Your task to perform on an android device: Clear the cart on costco. Add panasonic triple a to the cart on costco, then select checkout. Image 0: 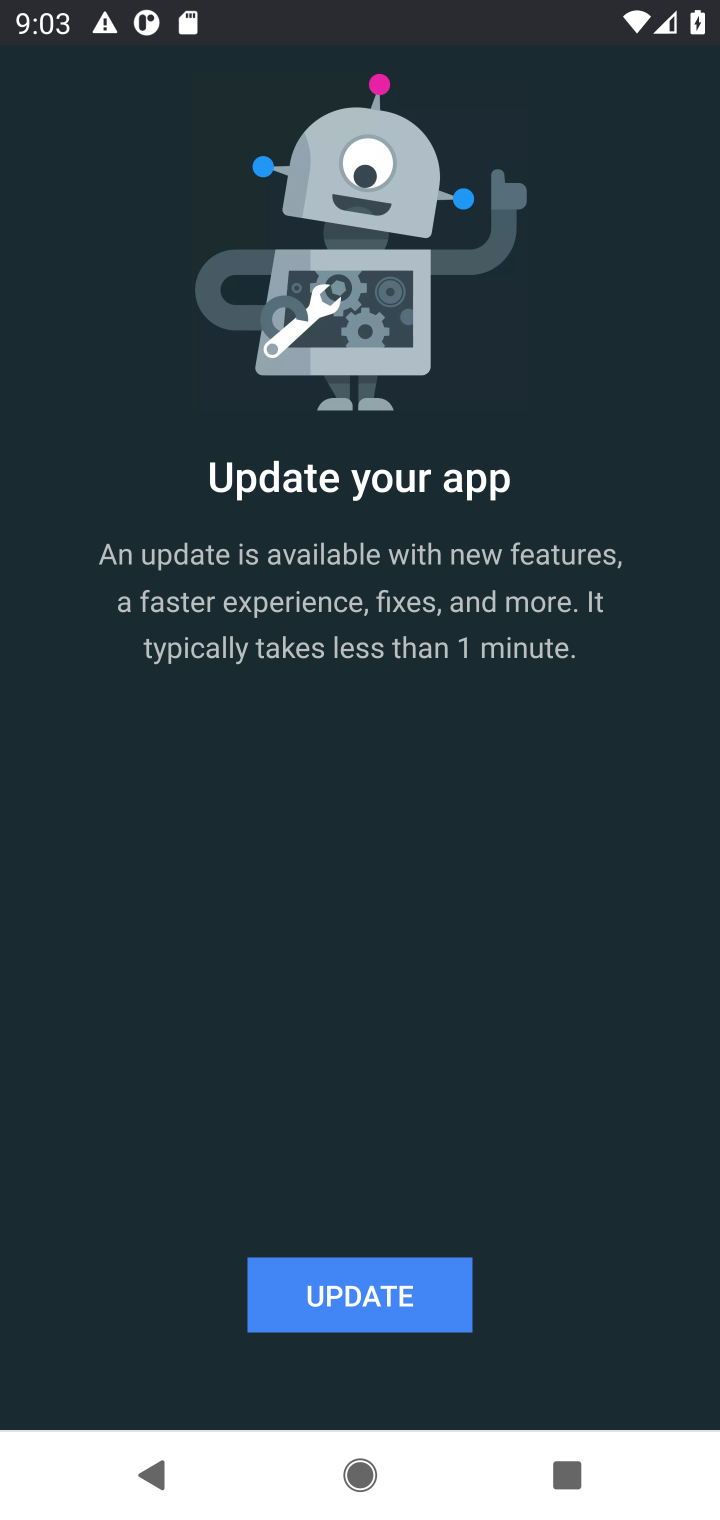
Step 0: press home button
Your task to perform on an android device: Clear the cart on costco. Add panasonic triple a to the cart on costco, then select checkout. Image 1: 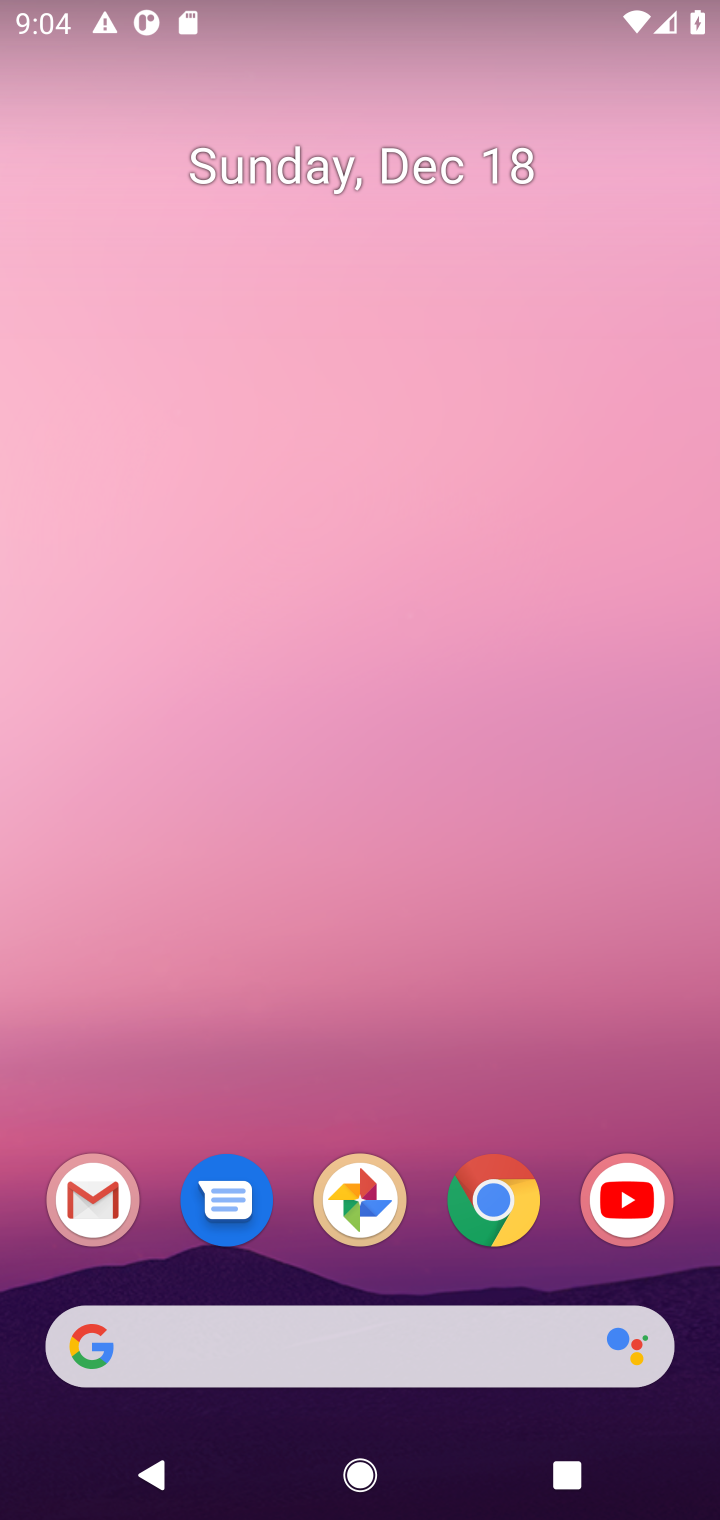
Step 1: click (485, 1213)
Your task to perform on an android device: Clear the cart on costco. Add panasonic triple a to the cart on costco, then select checkout. Image 2: 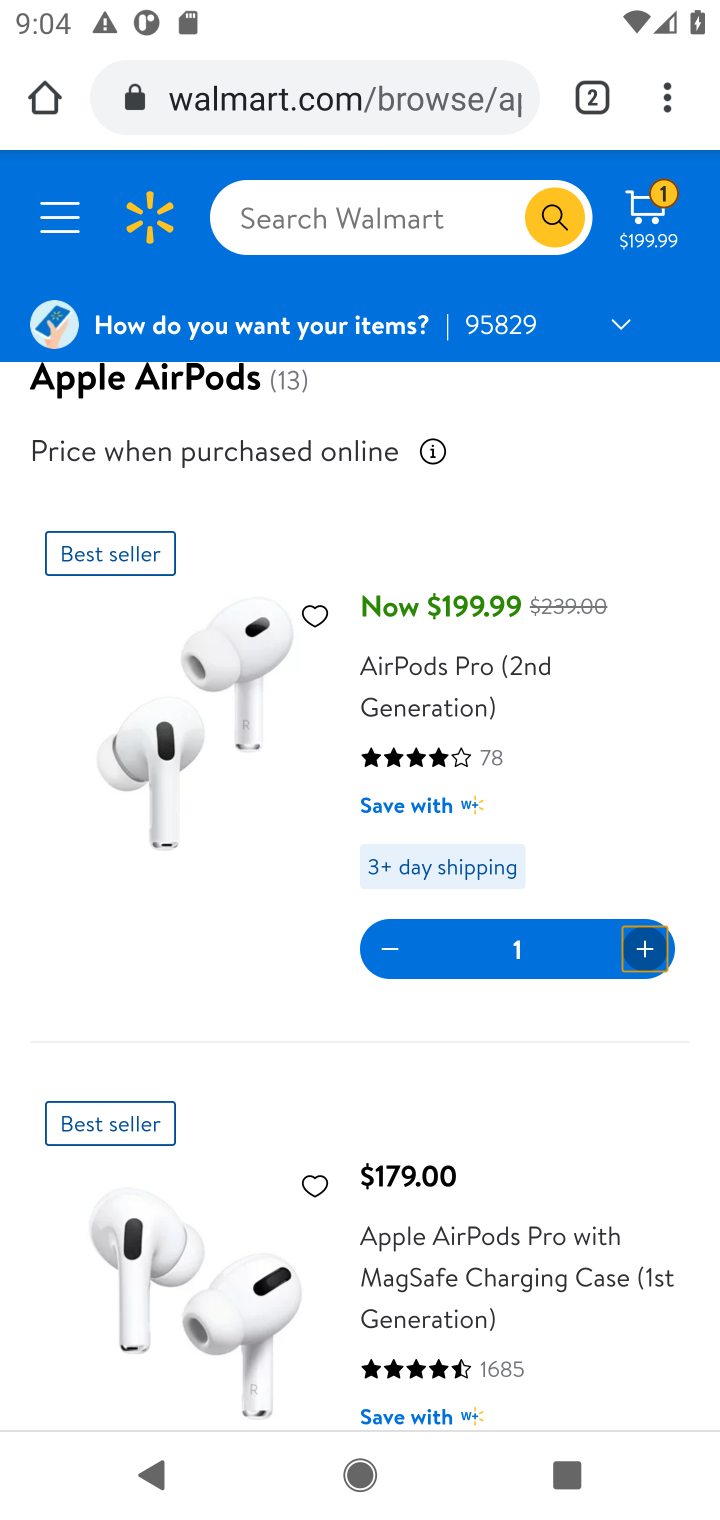
Step 2: click (203, 97)
Your task to perform on an android device: Clear the cart on costco. Add panasonic triple a to the cart on costco, then select checkout. Image 3: 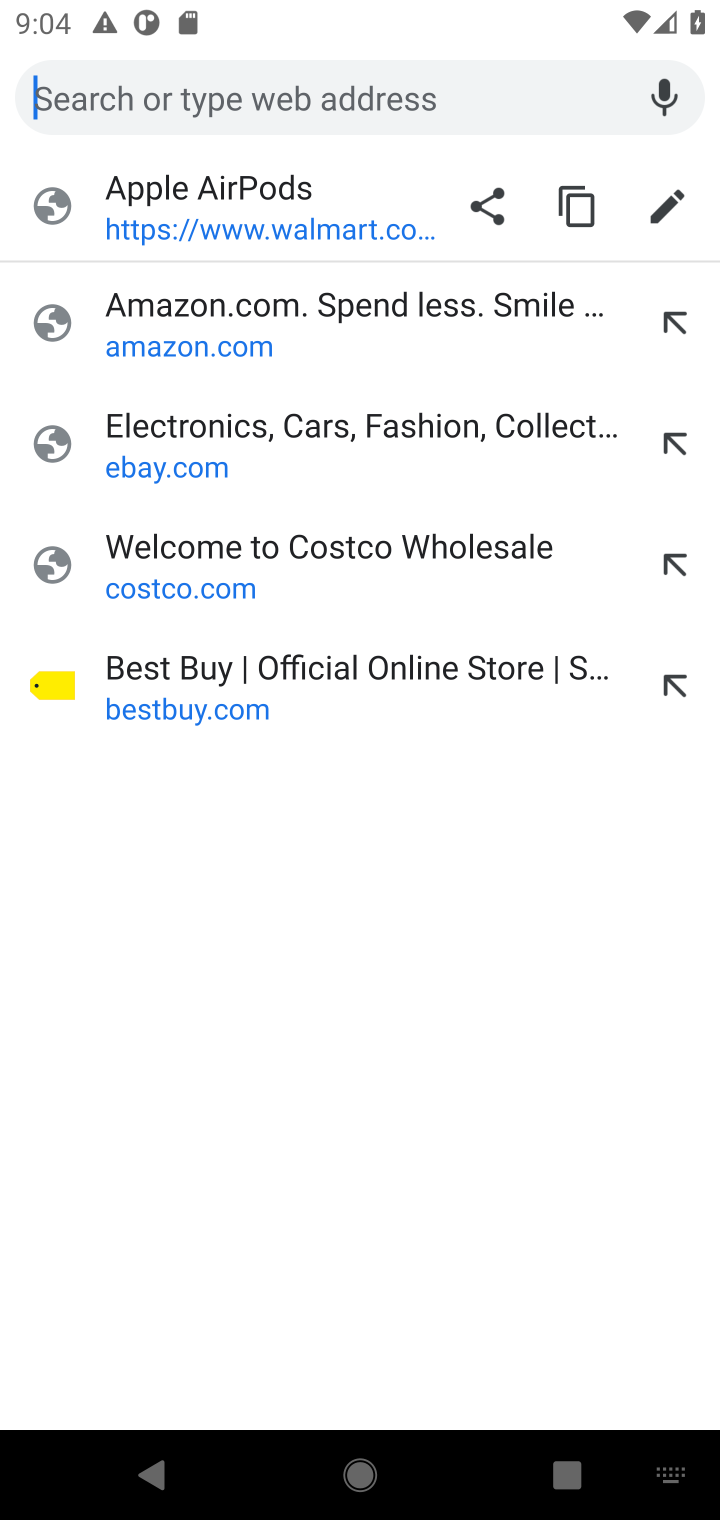
Step 3: click (168, 561)
Your task to perform on an android device: Clear the cart on costco. Add panasonic triple a to the cart on costco, then select checkout. Image 4: 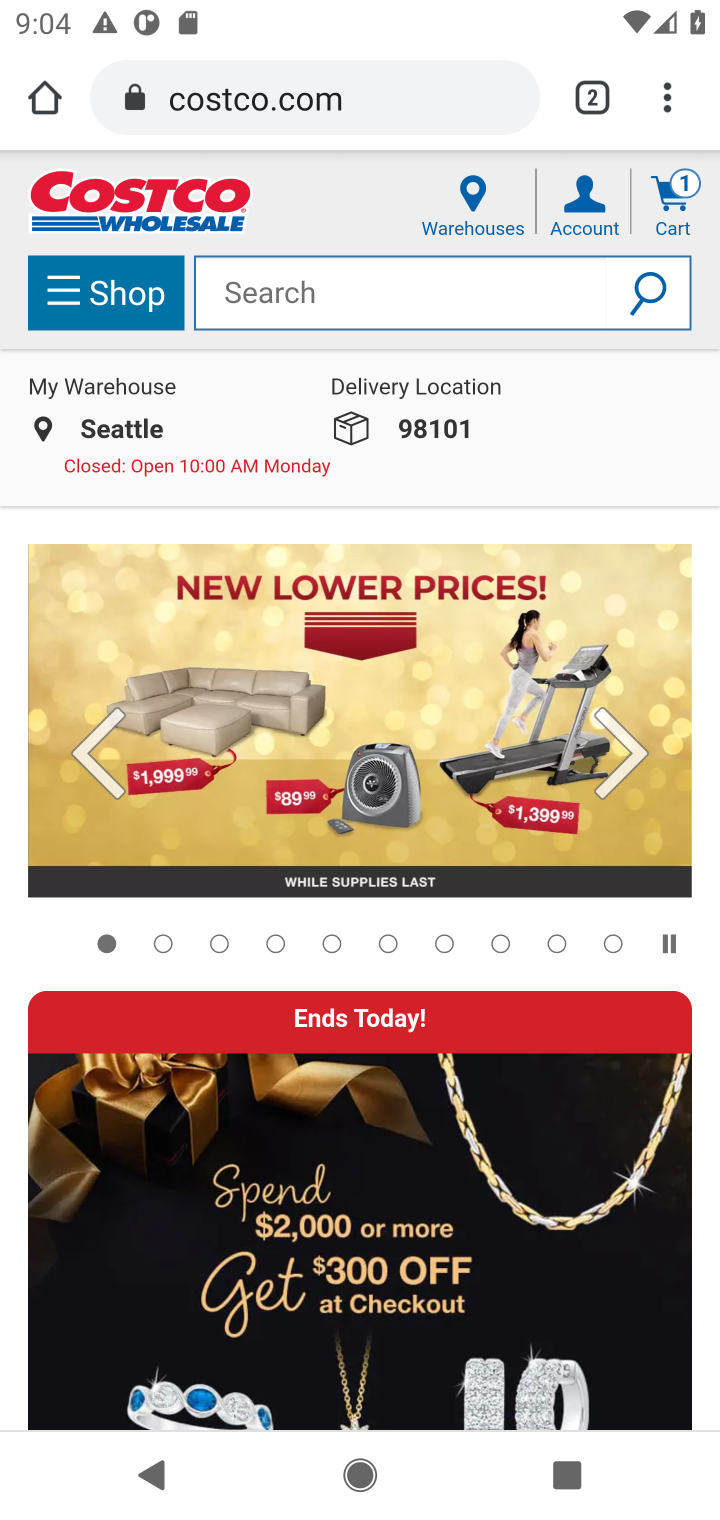
Step 4: click (667, 204)
Your task to perform on an android device: Clear the cart on costco. Add panasonic triple a to the cart on costco, then select checkout. Image 5: 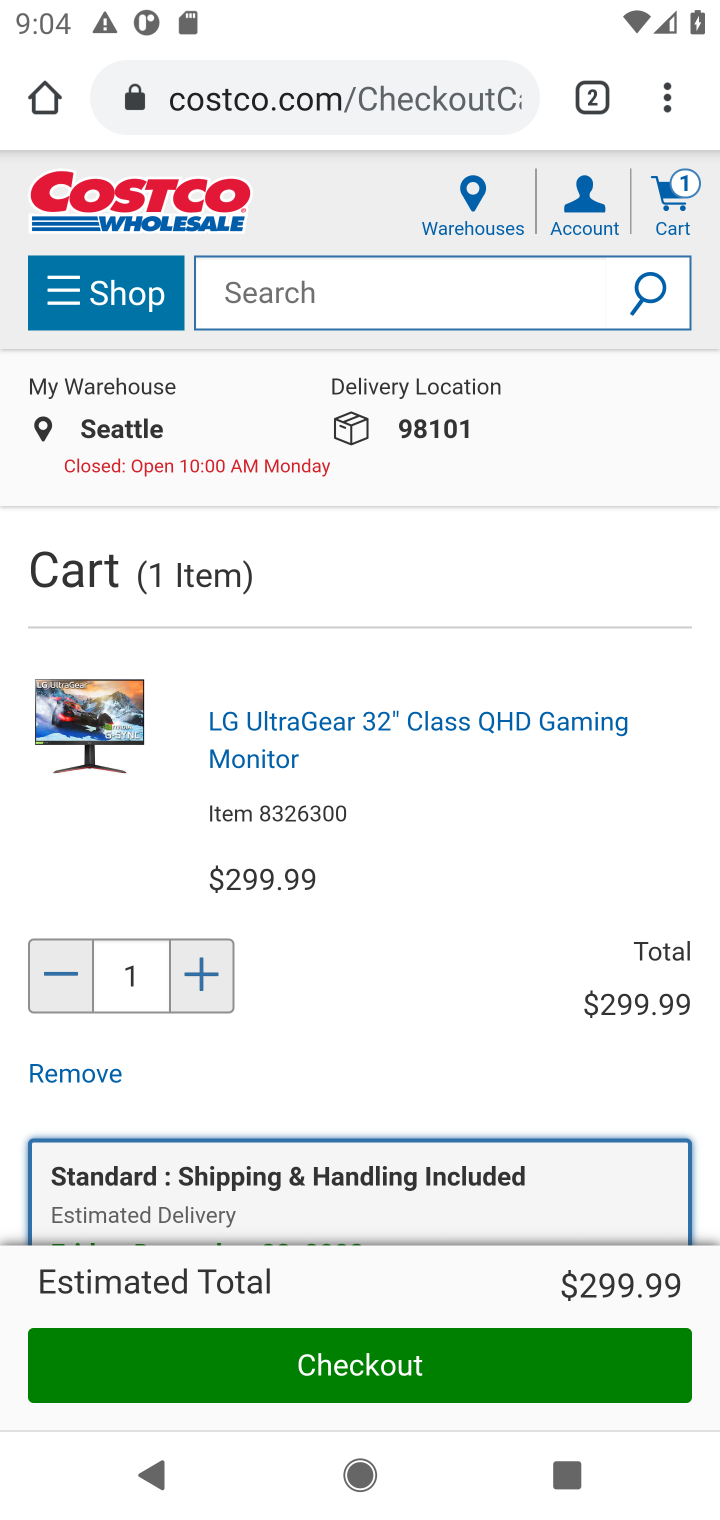
Step 5: drag from (389, 966) to (328, 568)
Your task to perform on an android device: Clear the cart on costco. Add panasonic triple a to the cart on costco, then select checkout. Image 6: 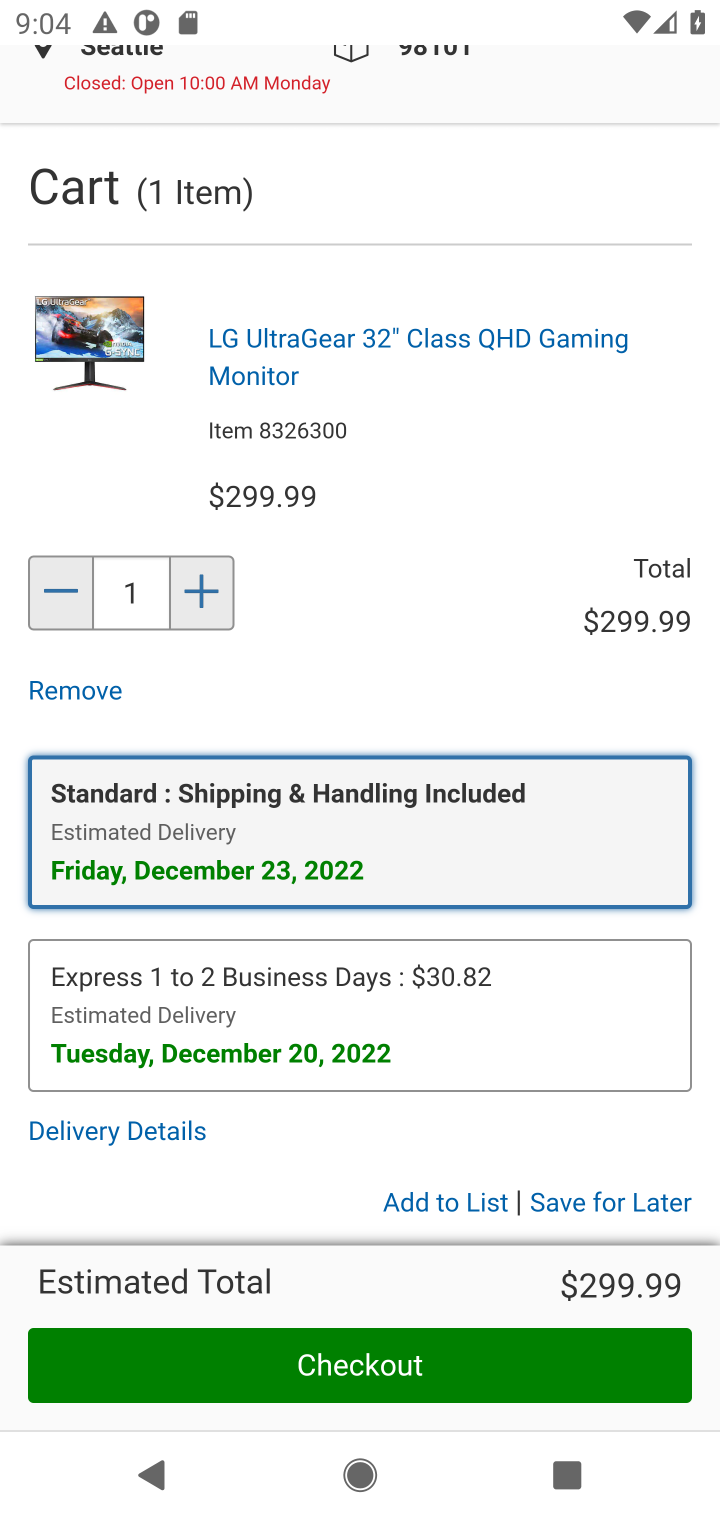
Step 6: click (591, 1208)
Your task to perform on an android device: Clear the cart on costco. Add panasonic triple a to the cart on costco, then select checkout. Image 7: 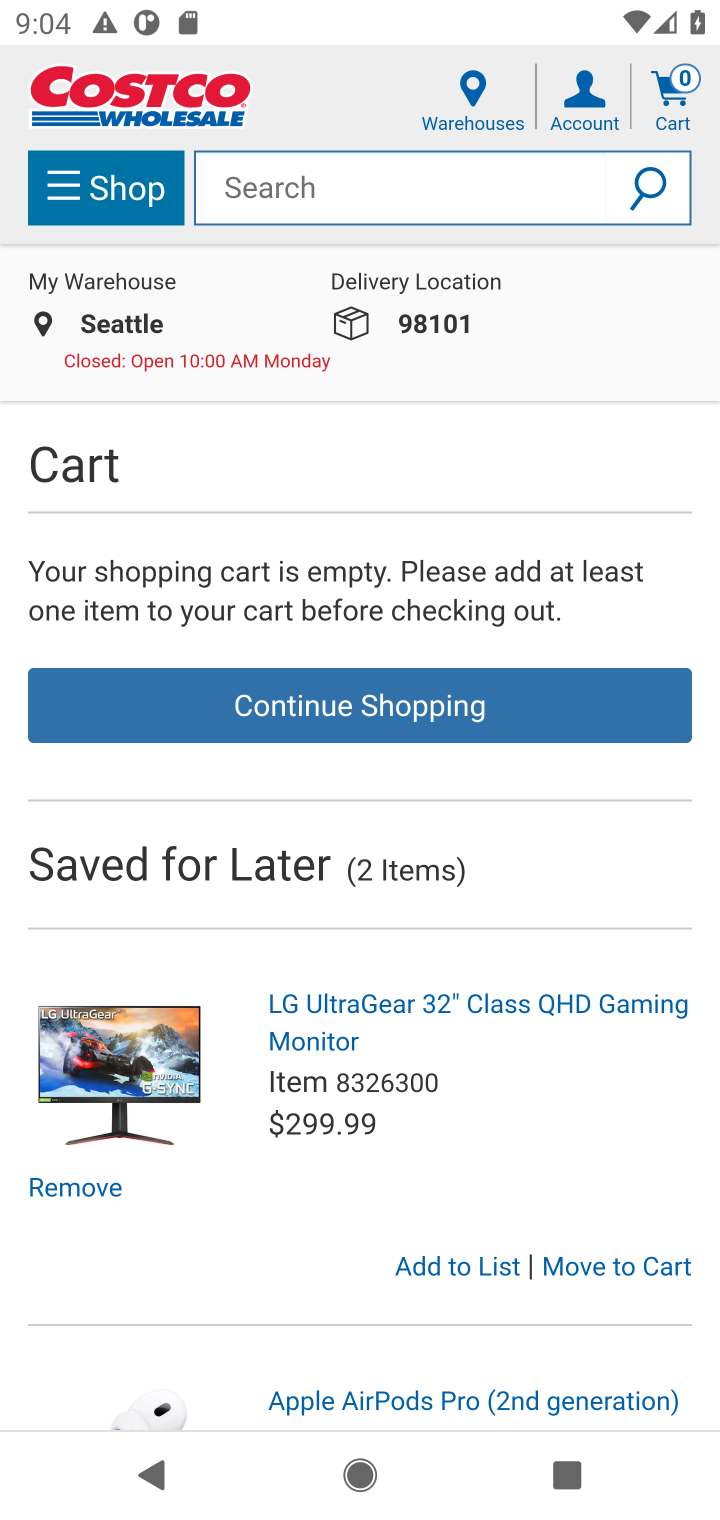
Step 7: click (637, 1268)
Your task to perform on an android device: Clear the cart on costco. Add panasonic triple a to the cart on costco, then select checkout. Image 8: 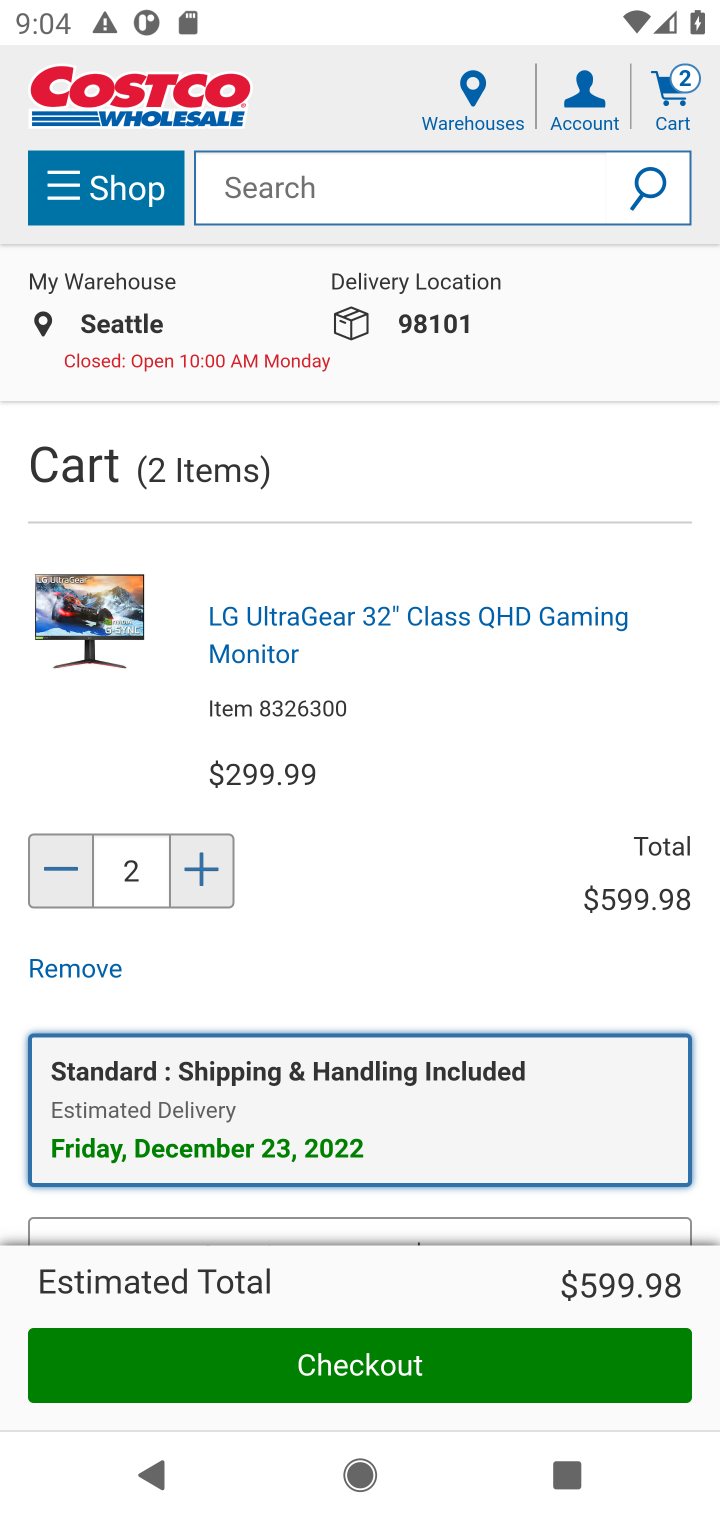
Step 8: drag from (409, 1145) to (320, 566)
Your task to perform on an android device: Clear the cart on costco. Add panasonic triple a to the cart on costco, then select checkout. Image 9: 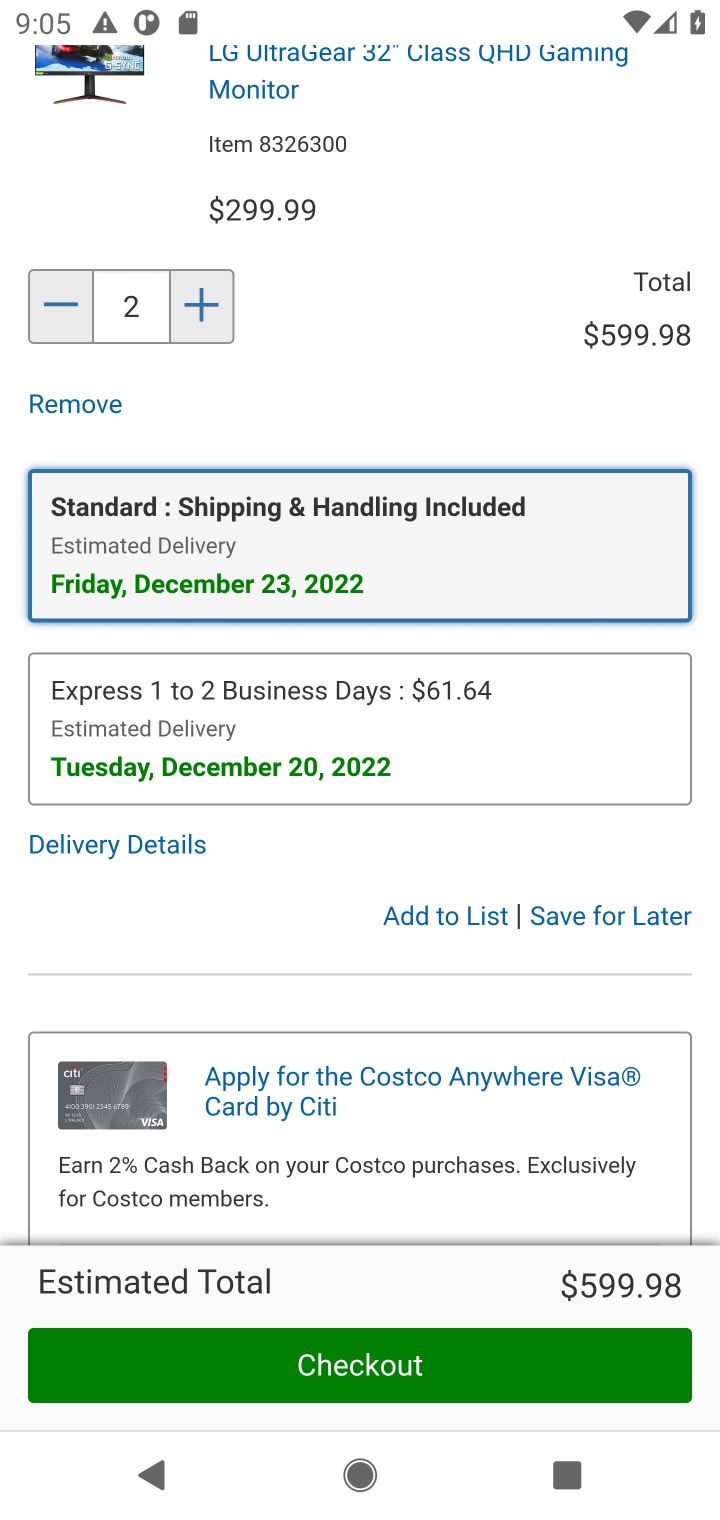
Step 9: click (618, 924)
Your task to perform on an android device: Clear the cart on costco. Add panasonic triple a to the cart on costco, then select checkout. Image 10: 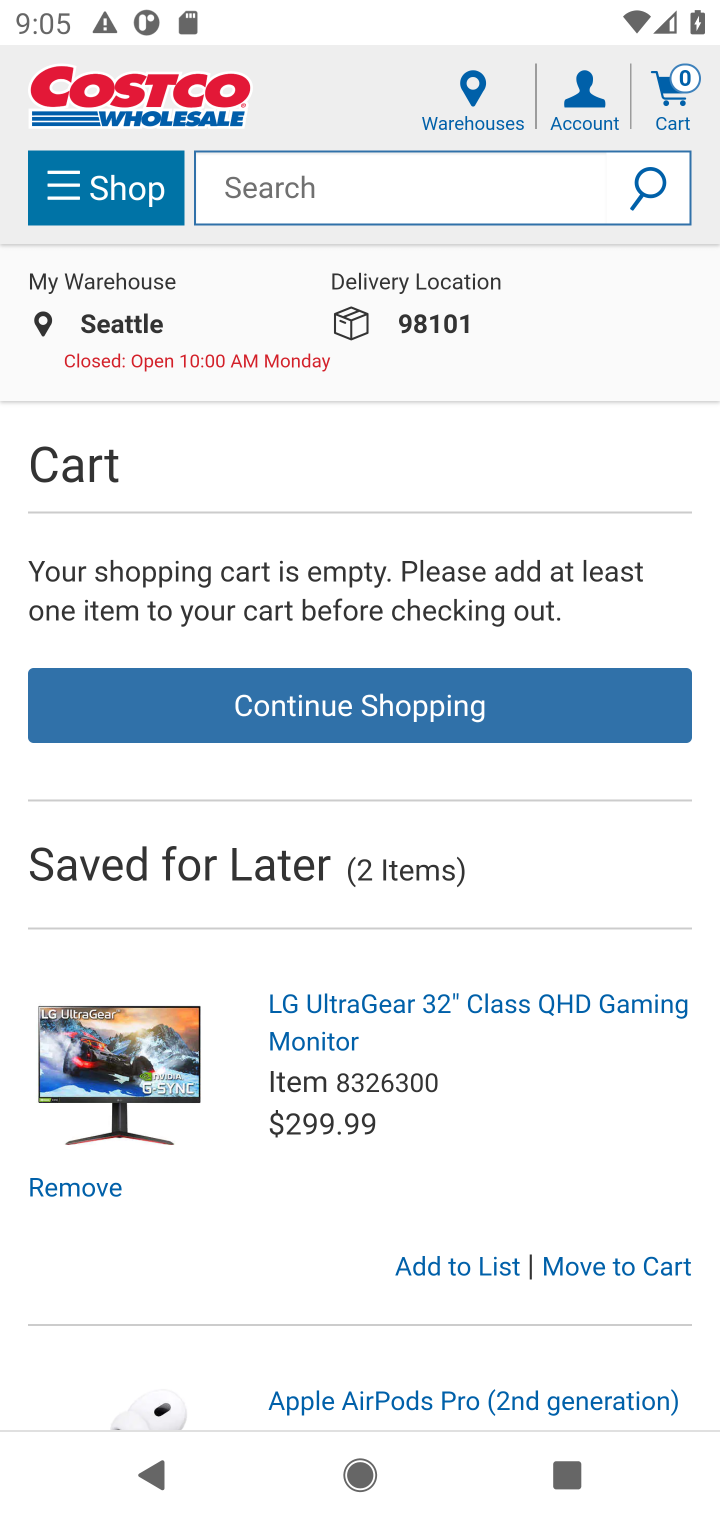
Step 10: click (313, 192)
Your task to perform on an android device: Clear the cart on costco. Add panasonic triple a to the cart on costco, then select checkout. Image 11: 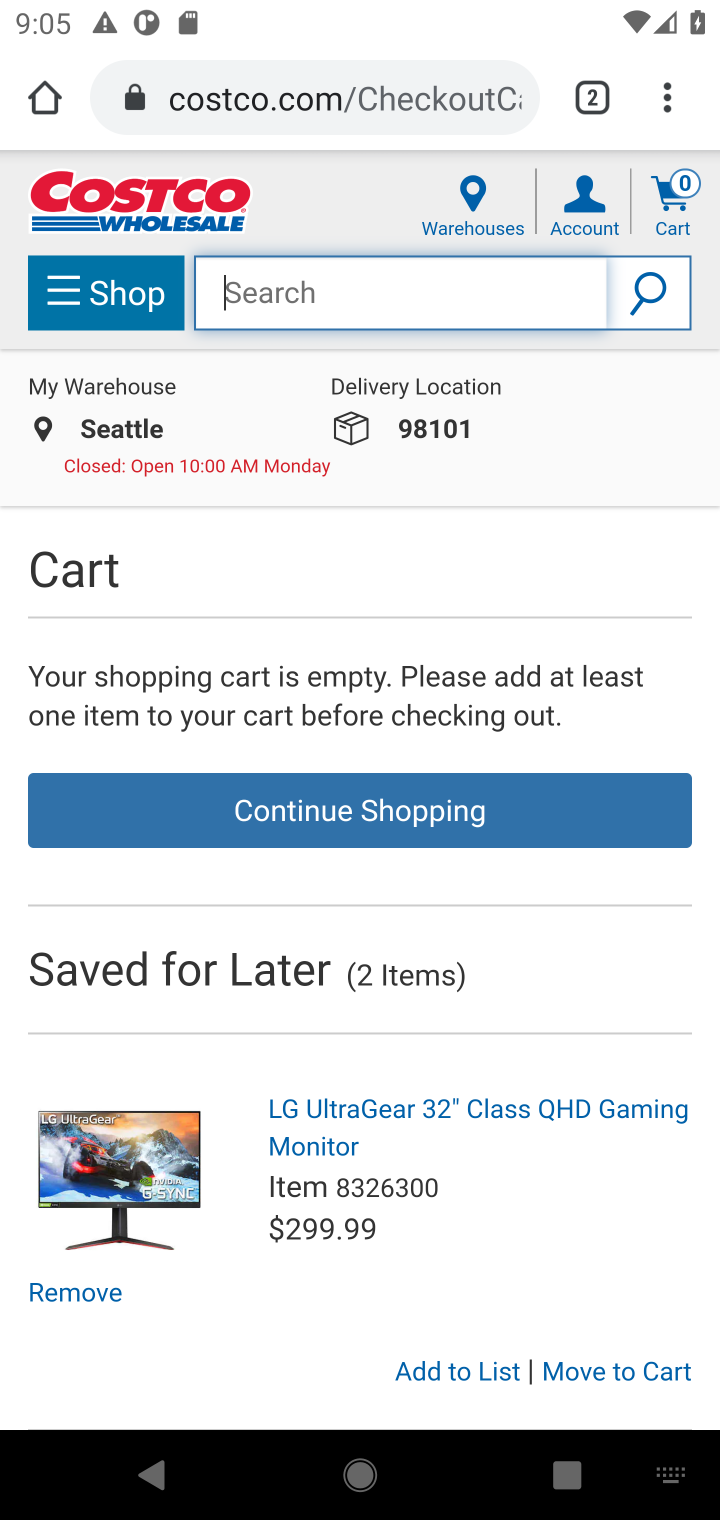
Step 11: type "panasonic triple a"
Your task to perform on an android device: Clear the cart on costco. Add panasonic triple a to the cart on costco, then select checkout. Image 12: 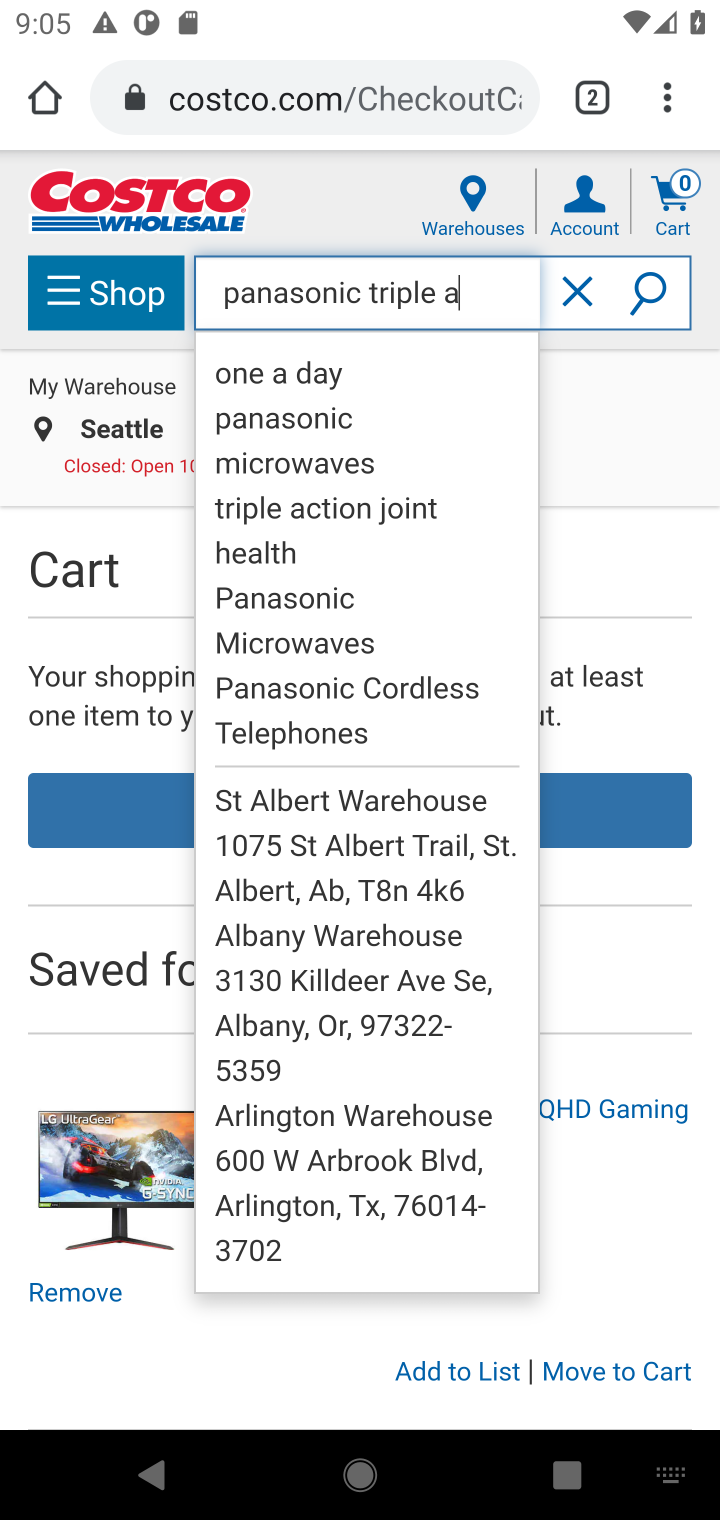
Step 12: click (632, 309)
Your task to perform on an android device: Clear the cart on costco. Add panasonic triple a to the cart on costco, then select checkout. Image 13: 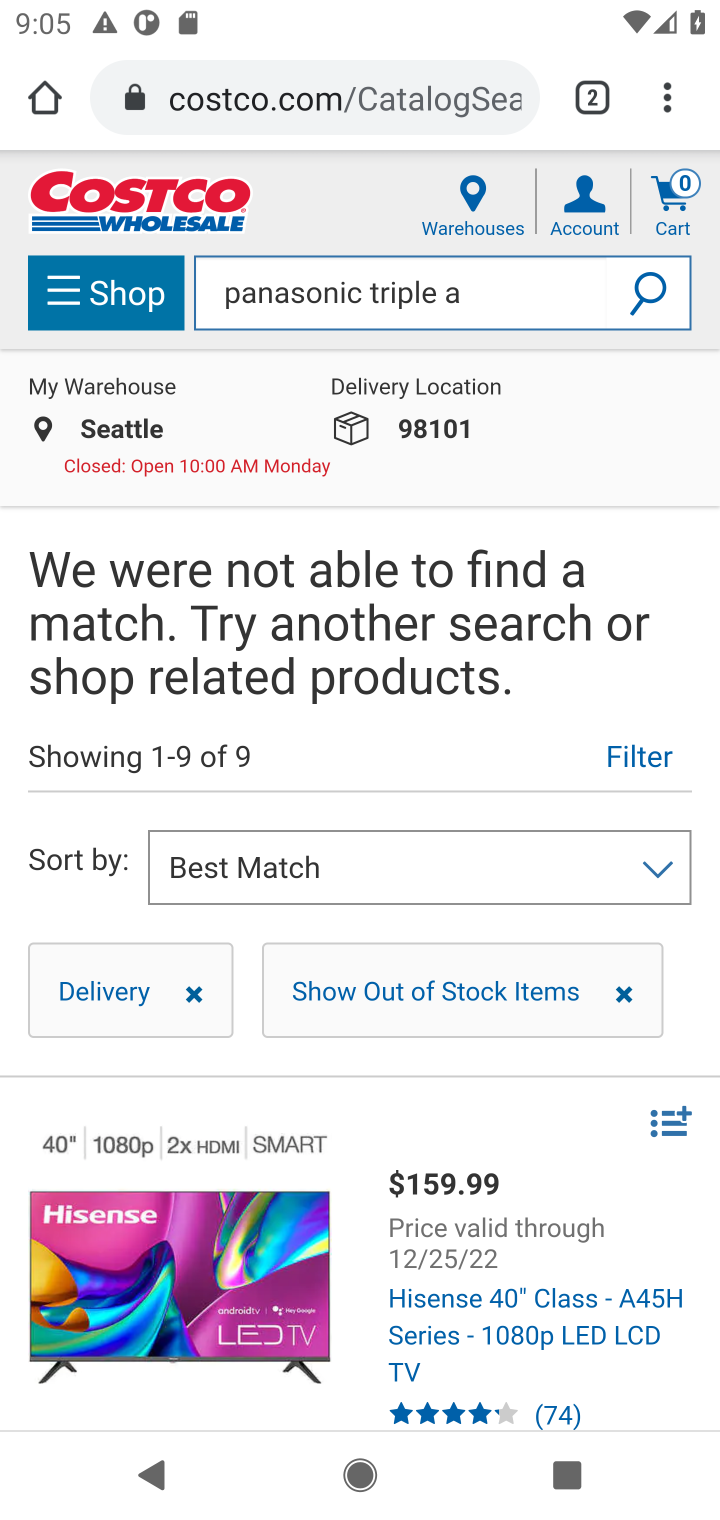
Step 13: task complete